Your task to perform on an android device: set the stopwatch Image 0: 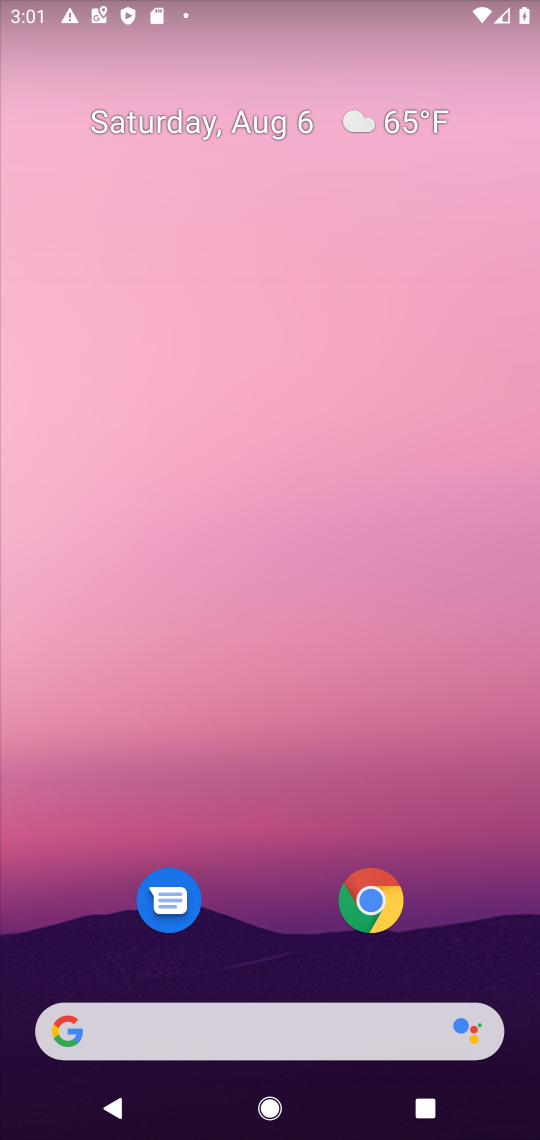
Step 0: press home button
Your task to perform on an android device: set the stopwatch Image 1: 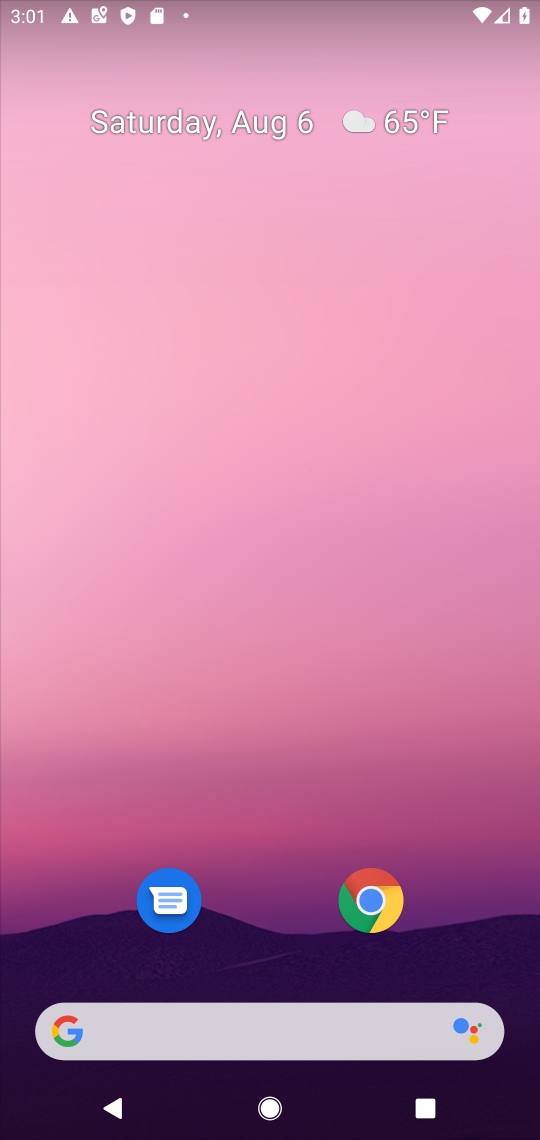
Step 1: drag from (251, 935) to (190, 67)
Your task to perform on an android device: set the stopwatch Image 2: 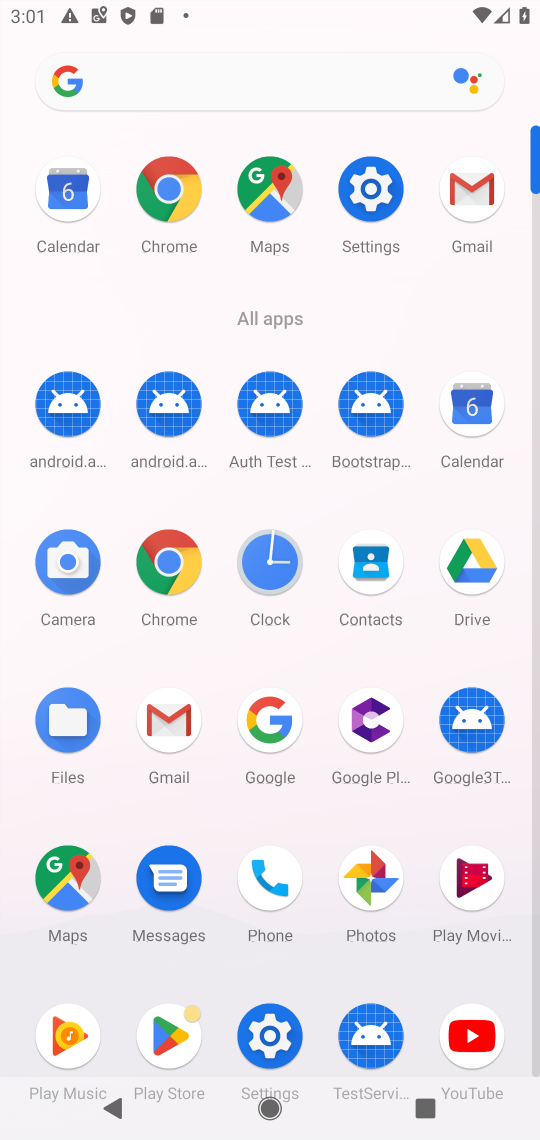
Step 2: click (267, 584)
Your task to perform on an android device: set the stopwatch Image 3: 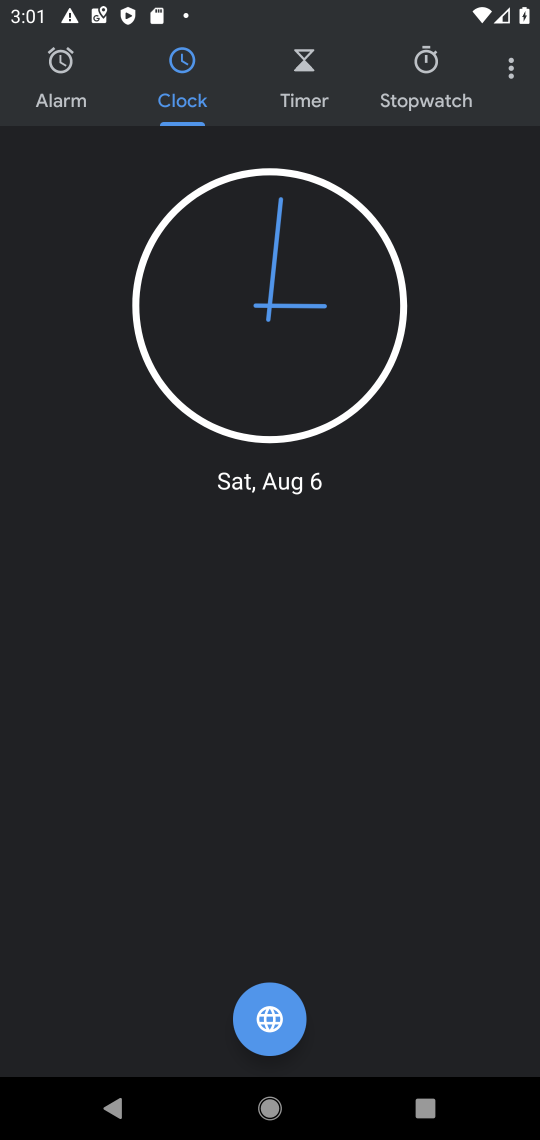
Step 3: click (436, 68)
Your task to perform on an android device: set the stopwatch Image 4: 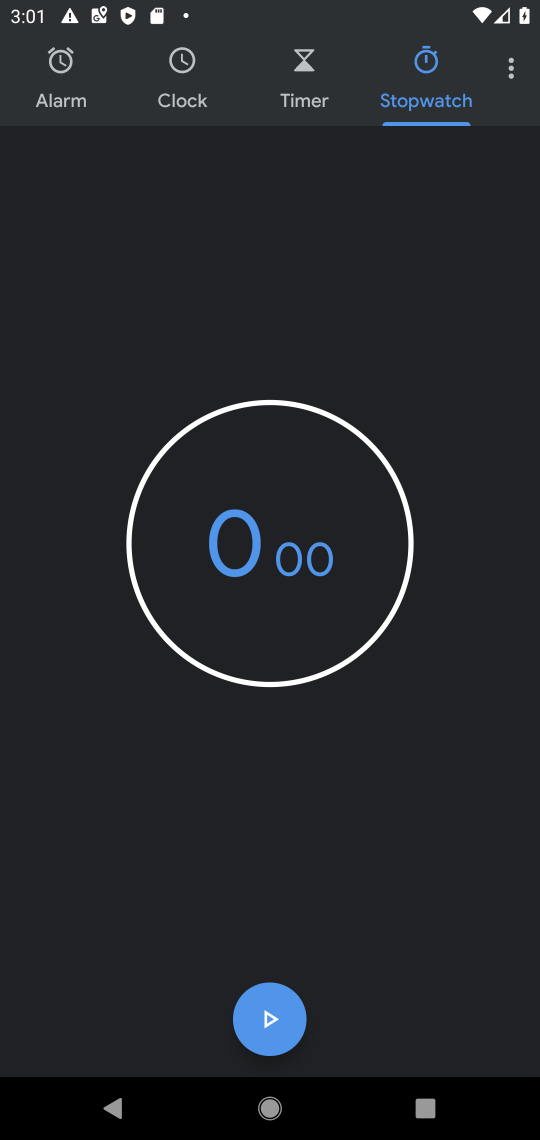
Step 4: click (272, 1036)
Your task to perform on an android device: set the stopwatch Image 5: 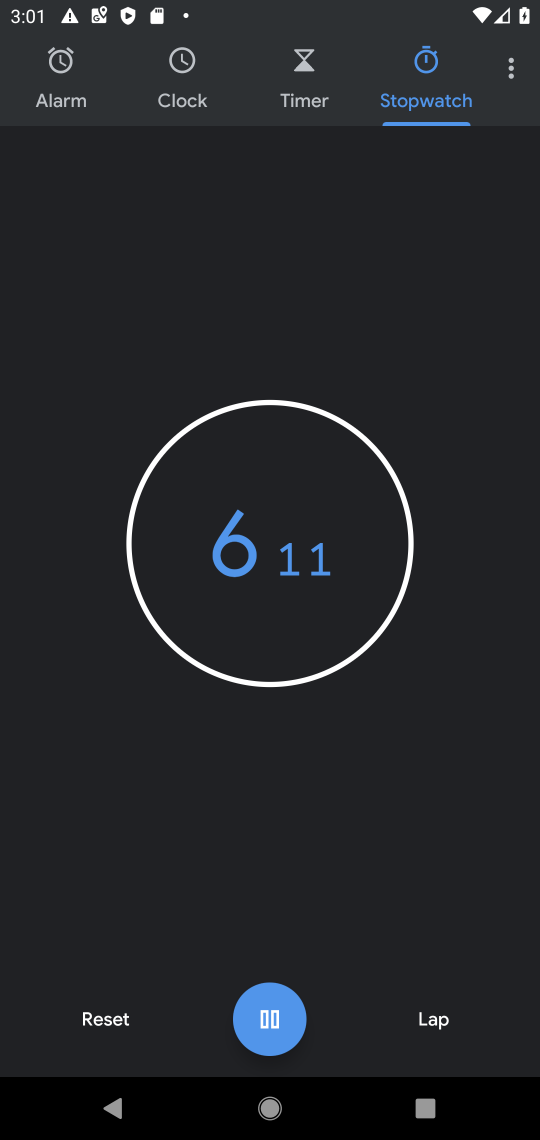
Step 5: click (280, 1021)
Your task to perform on an android device: set the stopwatch Image 6: 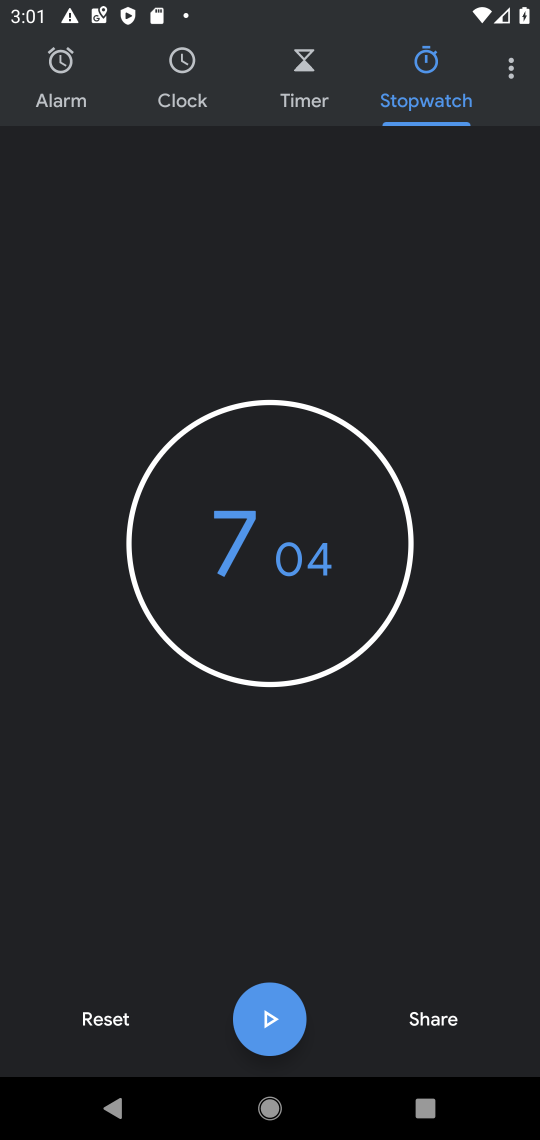
Step 6: task complete